Your task to perform on an android device: turn on priority inbox in the gmail app Image 0: 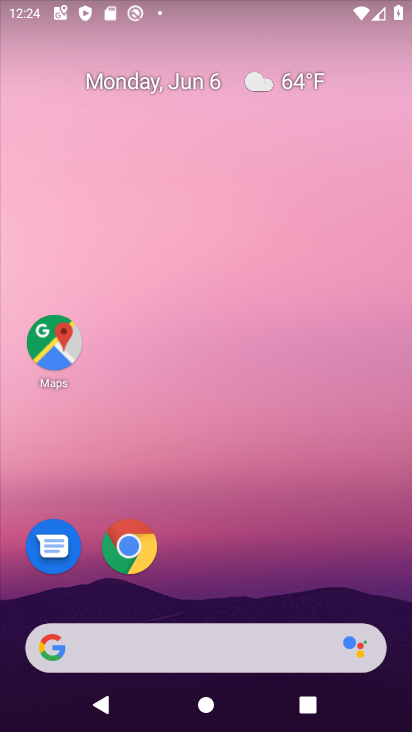
Step 0: drag from (237, 433) to (242, 299)
Your task to perform on an android device: turn on priority inbox in the gmail app Image 1: 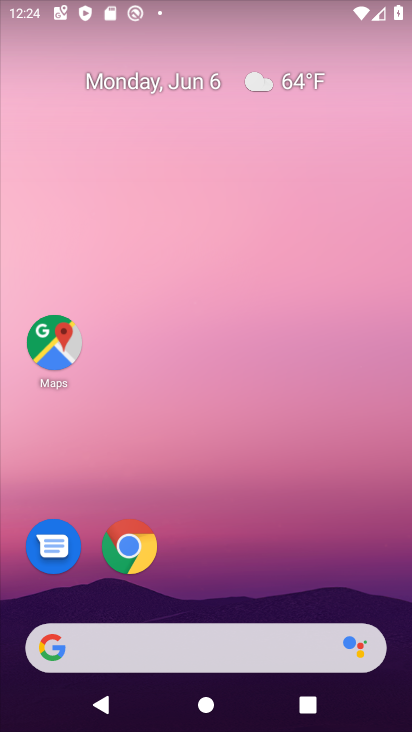
Step 1: drag from (183, 578) to (231, 90)
Your task to perform on an android device: turn on priority inbox in the gmail app Image 2: 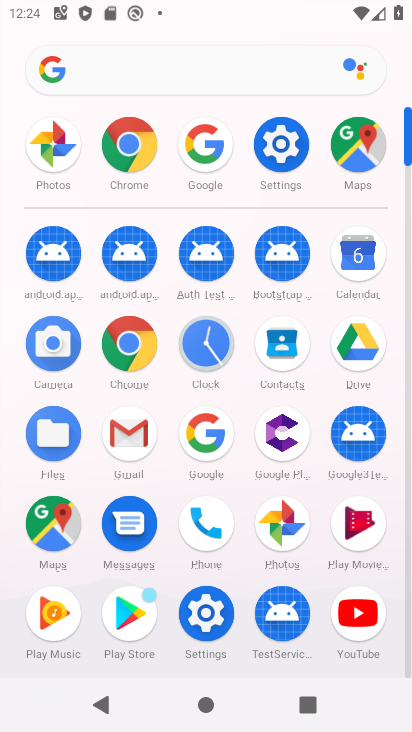
Step 2: click (125, 429)
Your task to perform on an android device: turn on priority inbox in the gmail app Image 3: 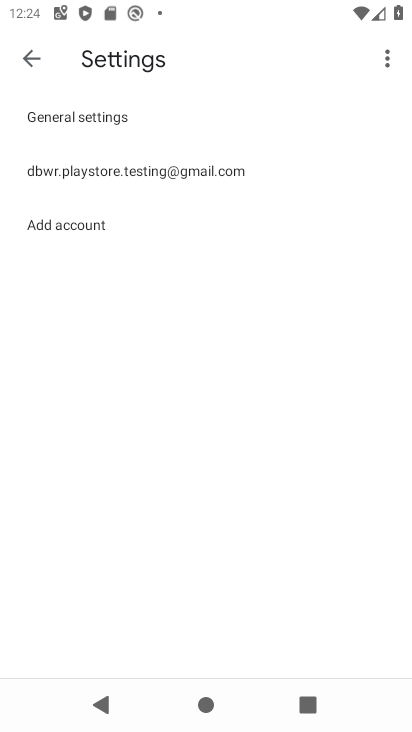
Step 3: click (84, 176)
Your task to perform on an android device: turn on priority inbox in the gmail app Image 4: 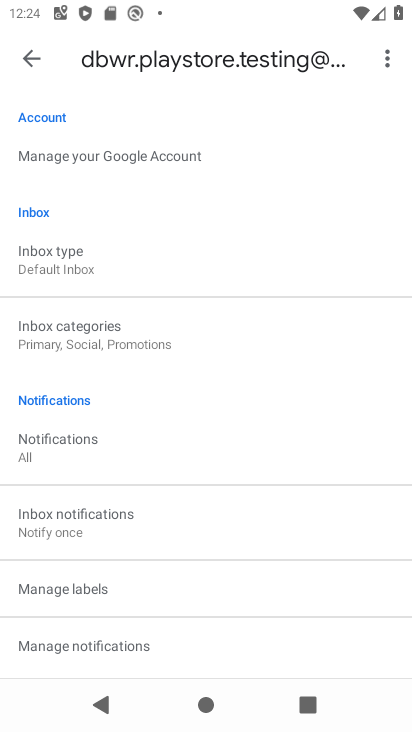
Step 4: click (75, 263)
Your task to perform on an android device: turn on priority inbox in the gmail app Image 5: 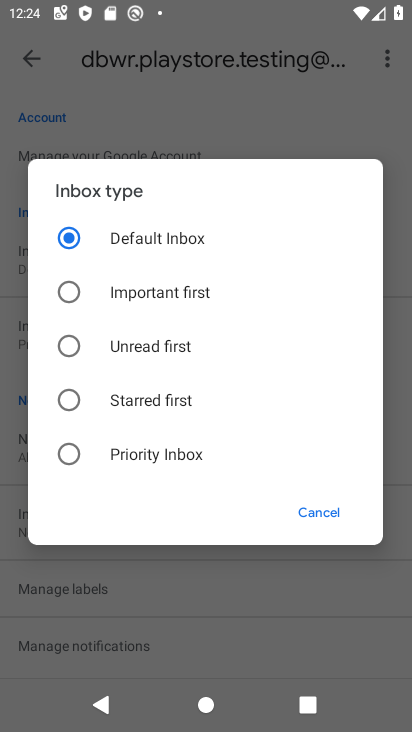
Step 5: click (133, 441)
Your task to perform on an android device: turn on priority inbox in the gmail app Image 6: 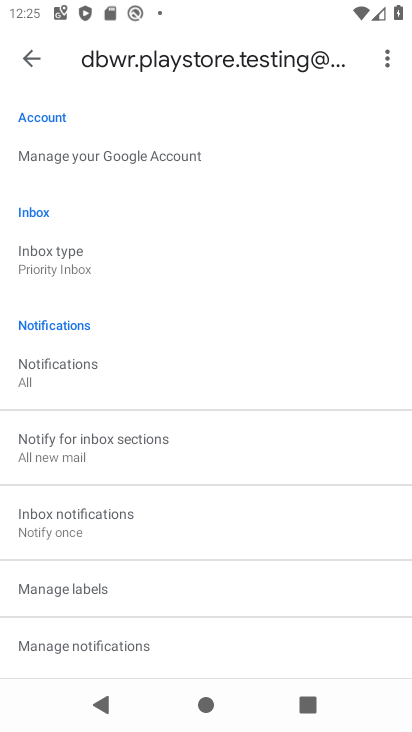
Step 6: task complete